Your task to perform on an android device: Open calendar and show me the fourth week of next month Image 0: 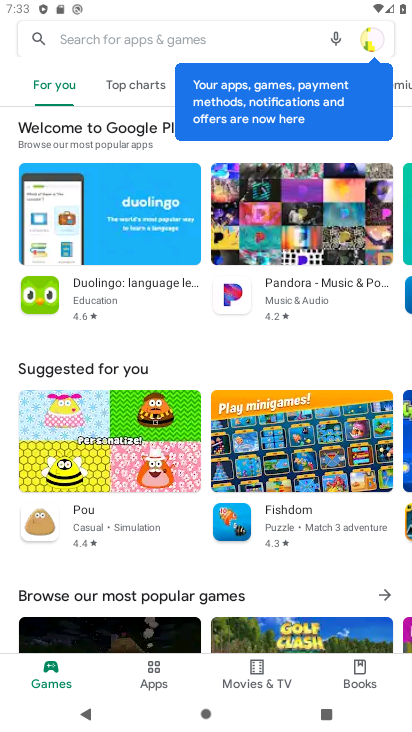
Step 0: press home button
Your task to perform on an android device: Open calendar and show me the fourth week of next month Image 1: 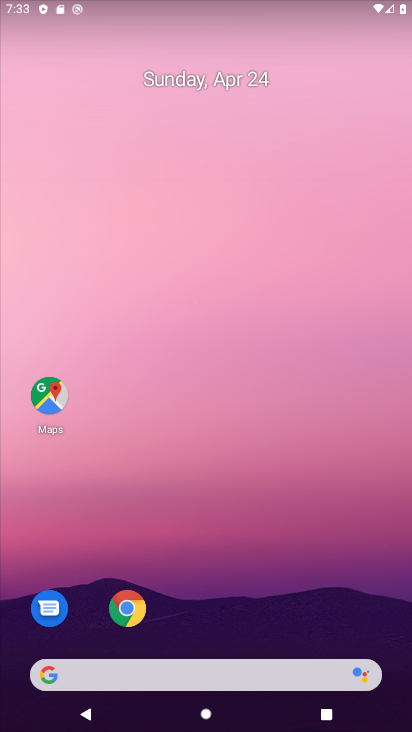
Step 1: drag from (220, 546) to (197, 123)
Your task to perform on an android device: Open calendar and show me the fourth week of next month Image 2: 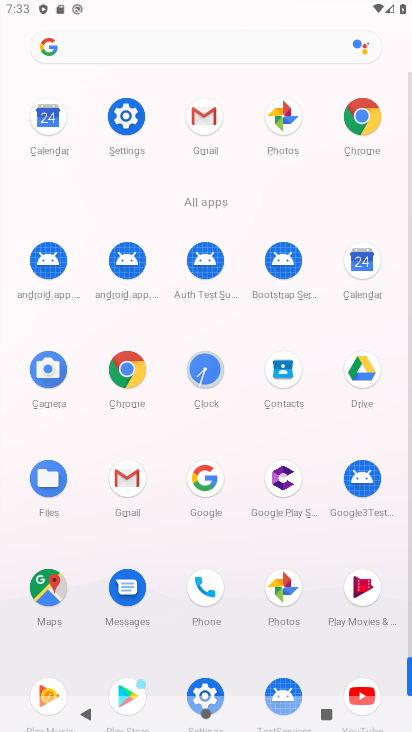
Step 2: click (358, 255)
Your task to perform on an android device: Open calendar and show me the fourth week of next month Image 3: 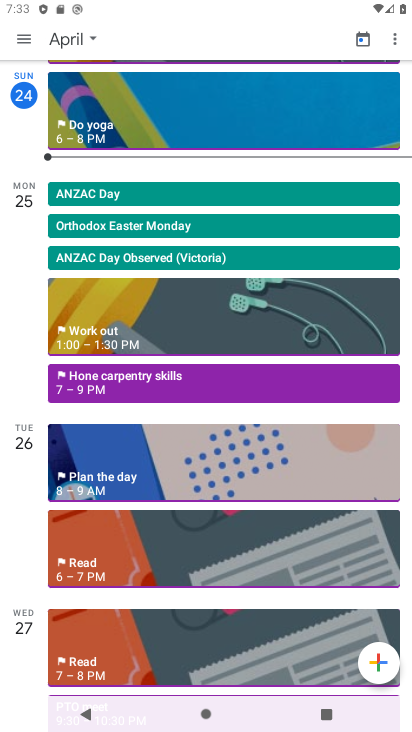
Step 3: click (22, 35)
Your task to perform on an android device: Open calendar and show me the fourth week of next month Image 4: 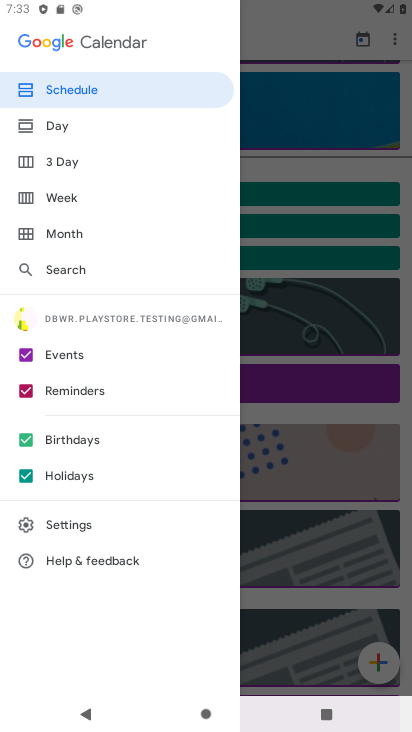
Step 4: click (39, 195)
Your task to perform on an android device: Open calendar and show me the fourth week of next month Image 5: 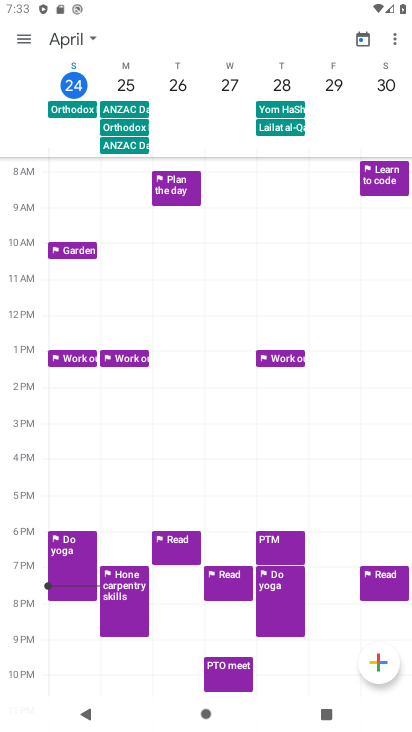
Step 5: task complete